Your task to perform on an android device: choose inbox layout in the gmail app Image 0: 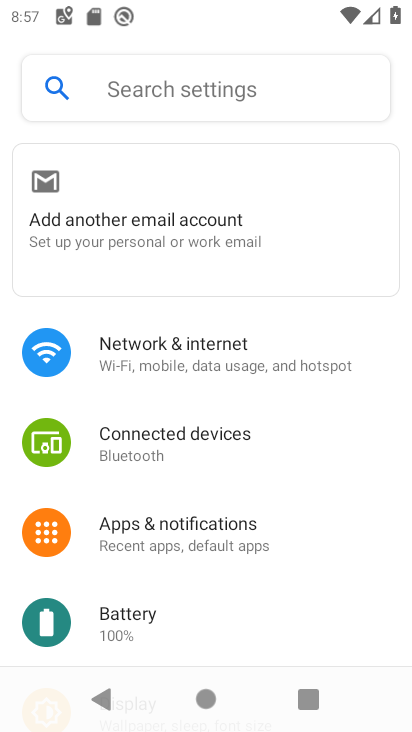
Step 0: press back button
Your task to perform on an android device: choose inbox layout in the gmail app Image 1: 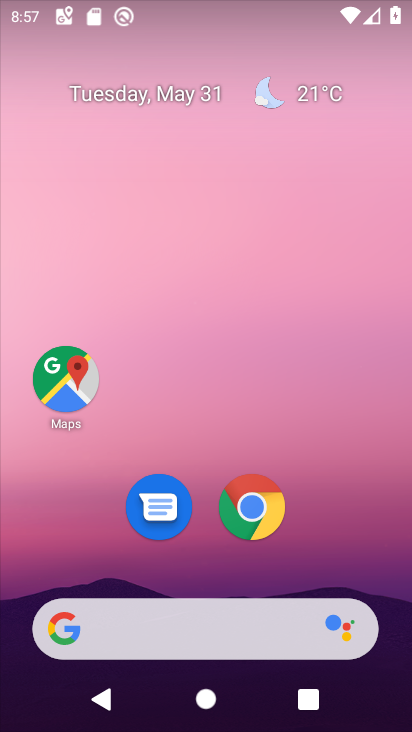
Step 1: drag from (210, 591) to (139, 198)
Your task to perform on an android device: choose inbox layout in the gmail app Image 2: 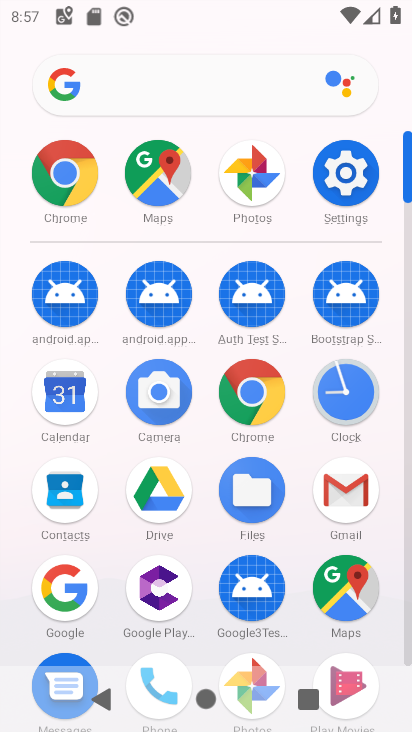
Step 2: click (334, 481)
Your task to perform on an android device: choose inbox layout in the gmail app Image 3: 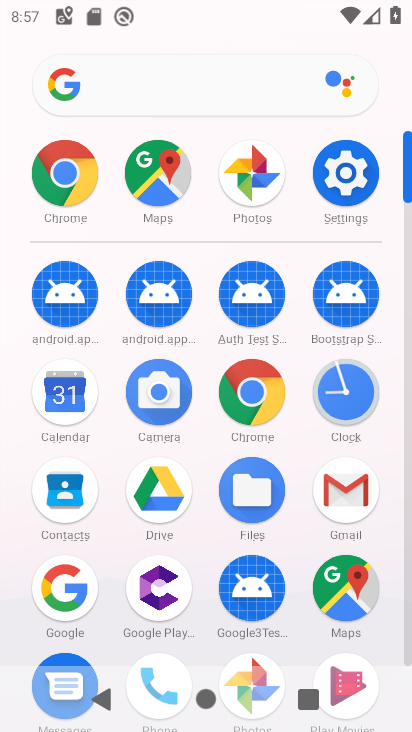
Step 3: click (334, 481)
Your task to perform on an android device: choose inbox layout in the gmail app Image 4: 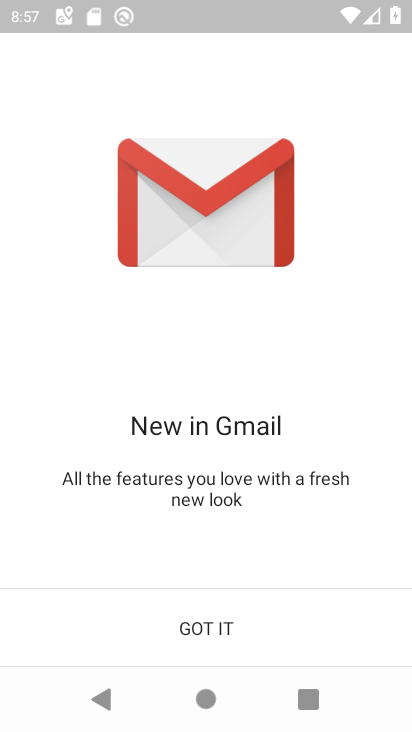
Step 4: click (201, 617)
Your task to perform on an android device: choose inbox layout in the gmail app Image 5: 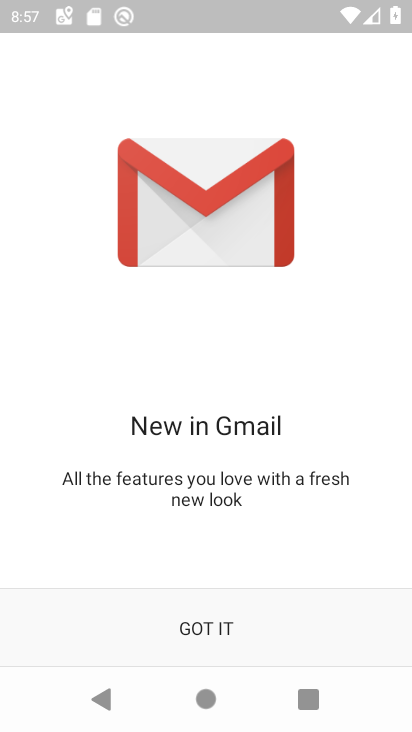
Step 5: click (201, 617)
Your task to perform on an android device: choose inbox layout in the gmail app Image 6: 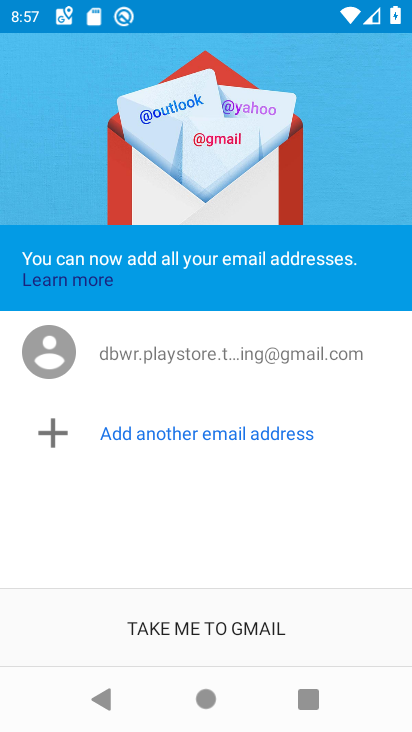
Step 6: click (206, 629)
Your task to perform on an android device: choose inbox layout in the gmail app Image 7: 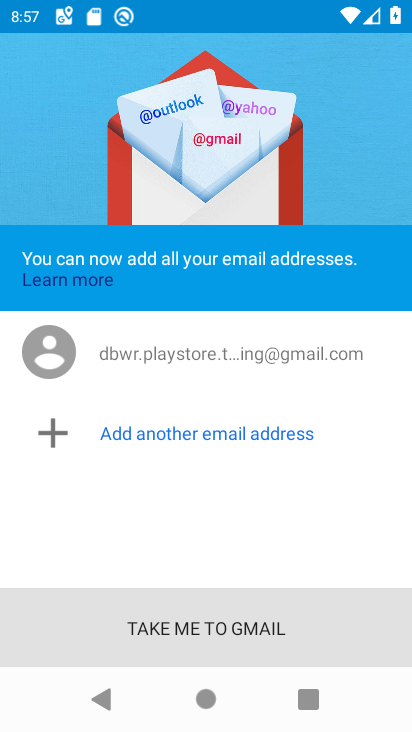
Step 7: click (206, 629)
Your task to perform on an android device: choose inbox layout in the gmail app Image 8: 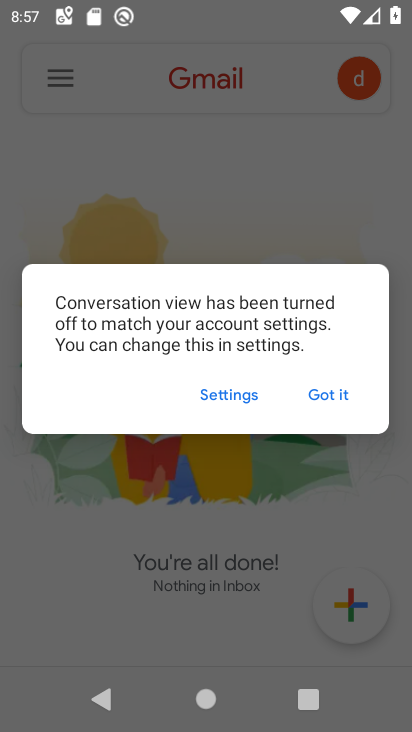
Step 8: click (338, 391)
Your task to perform on an android device: choose inbox layout in the gmail app Image 9: 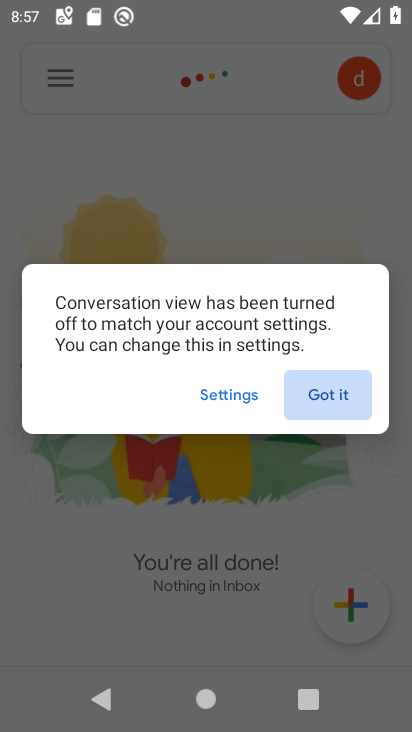
Step 9: click (339, 392)
Your task to perform on an android device: choose inbox layout in the gmail app Image 10: 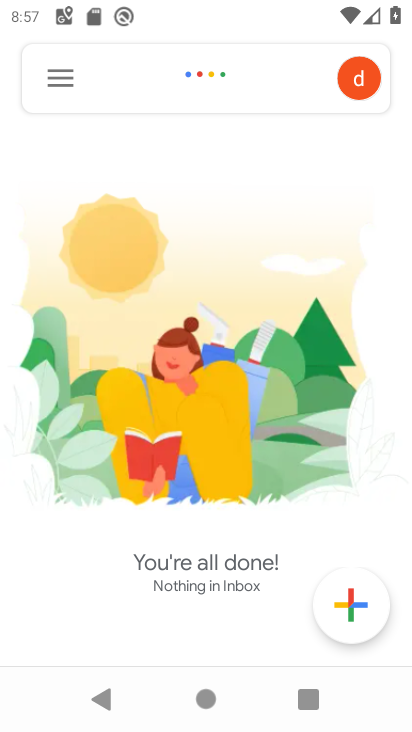
Step 10: click (338, 393)
Your task to perform on an android device: choose inbox layout in the gmail app Image 11: 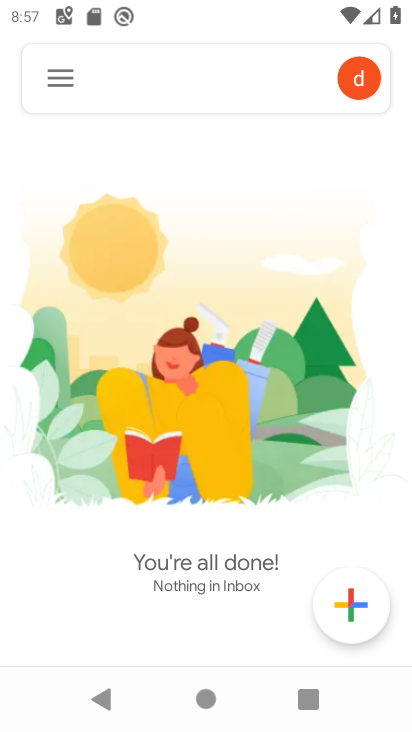
Step 11: click (338, 393)
Your task to perform on an android device: choose inbox layout in the gmail app Image 12: 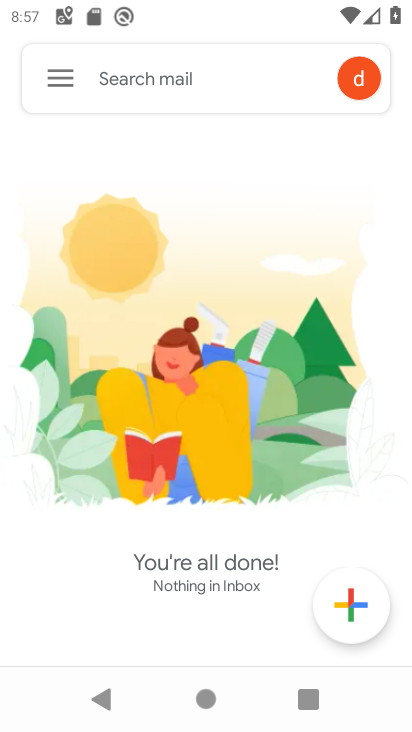
Step 12: click (58, 77)
Your task to perform on an android device: choose inbox layout in the gmail app Image 13: 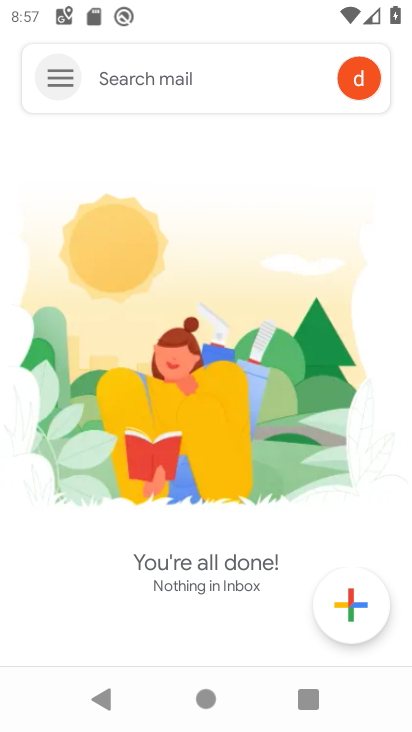
Step 13: click (59, 78)
Your task to perform on an android device: choose inbox layout in the gmail app Image 14: 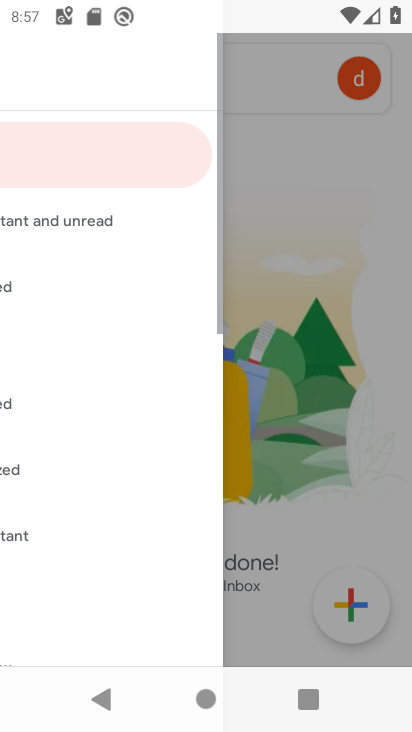
Step 14: click (59, 78)
Your task to perform on an android device: choose inbox layout in the gmail app Image 15: 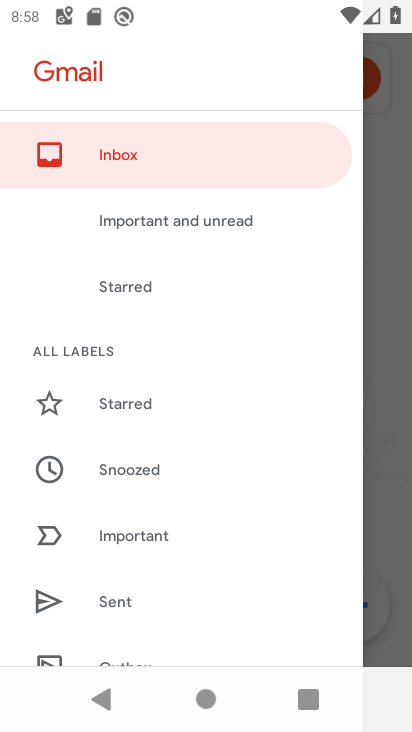
Step 15: drag from (197, 427) to (200, 253)
Your task to perform on an android device: choose inbox layout in the gmail app Image 16: 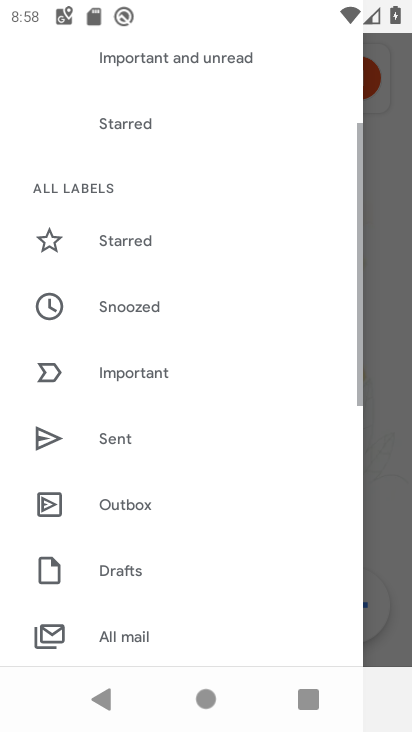
Step 16: drag from (225, 478) to (216, 4)
Your task to perform on an android device: choose inbox layout in the gmail app Image 17: 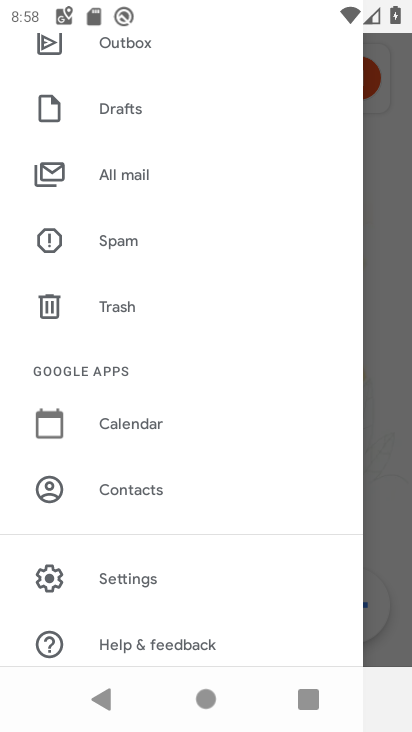
Step 17: click (113, 570)
Your task to perform on an android device: choose inbox layout in the gmail app Image 18: 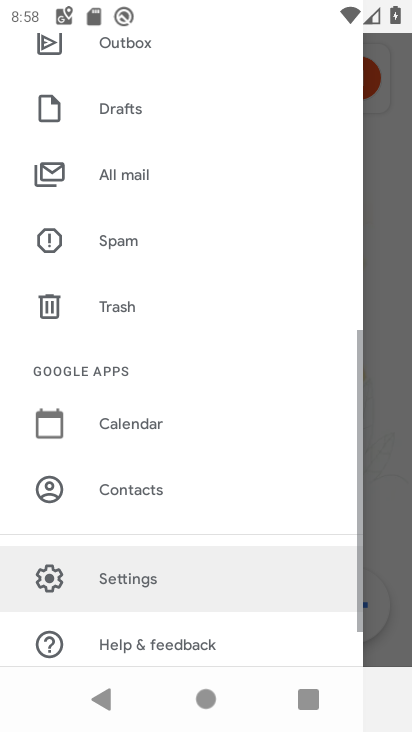
Step 18: click (115, 576)
Your task to perform on an android device: choose inbox layout in the gmail app Image 19: 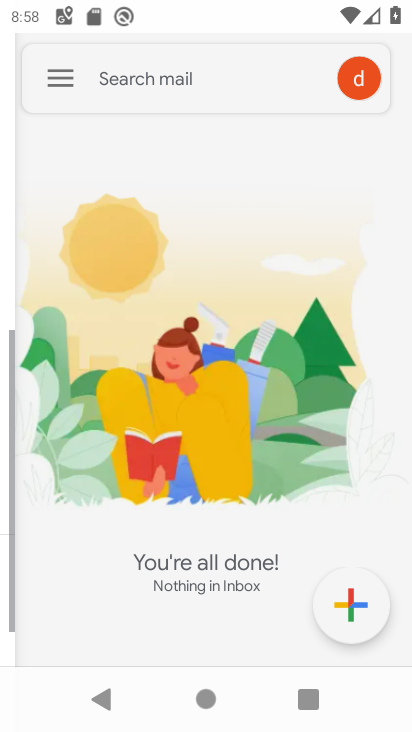
Step 19: click (123, 577)
Your task to perform on an android device: choose inbox layout in the gmail app Image 20: 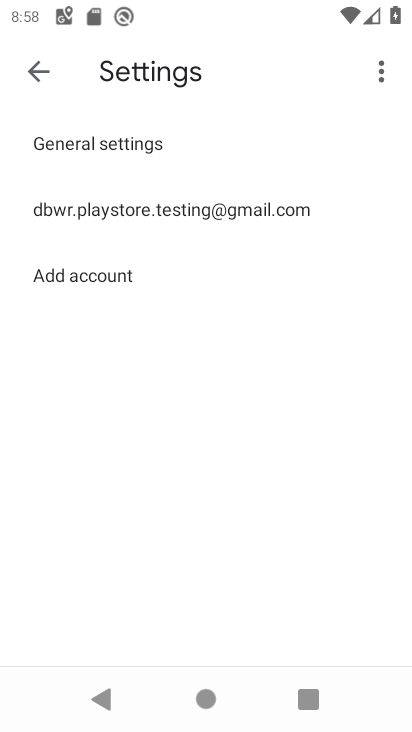
Step 20: click (126, 194)
Your task to perform on an android device: choose inbox layout in the gmail app Image 21: 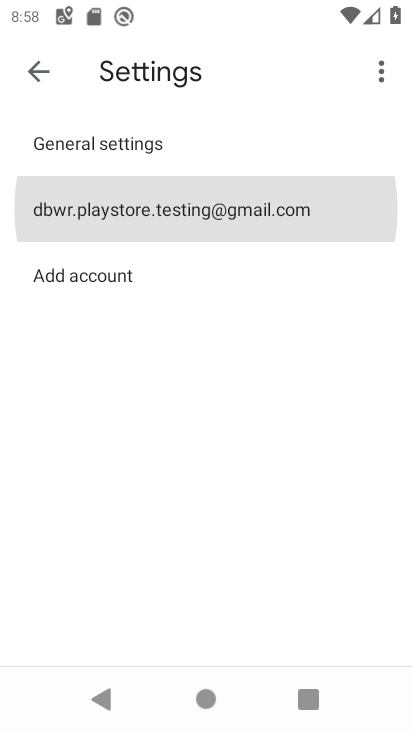
Step 21: click (127, 195)
Your task to perform on an android device: choose inbox layout in the gmail app Image 22: 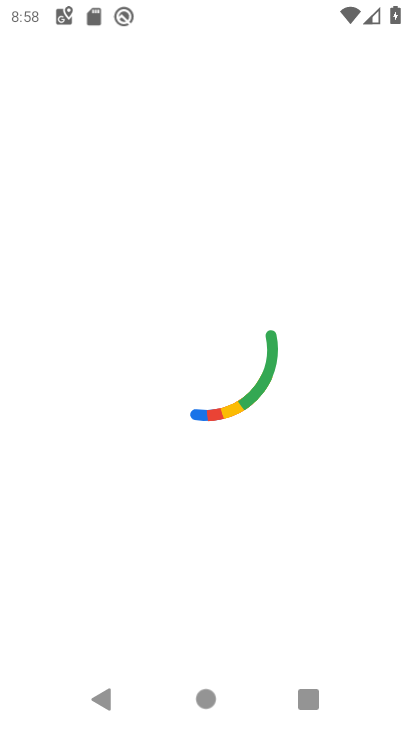
Step 22: press back button
Your task to perform on an android device: choose inbox layout in the gmail app Image 23: 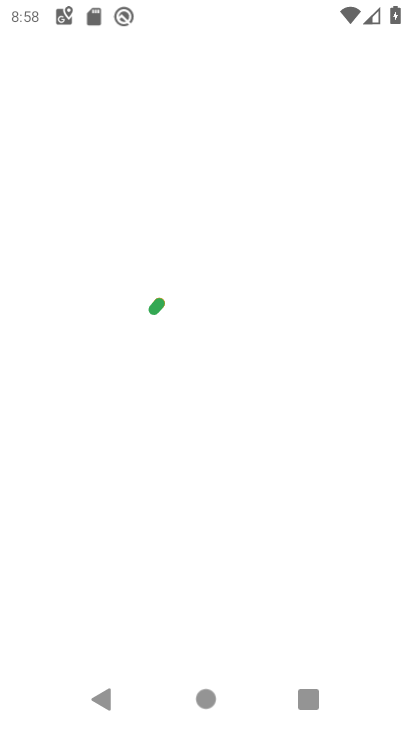
Step 23: press back button
Your task to perform on an android device: choose inbox layout in the gmail app Image 24: 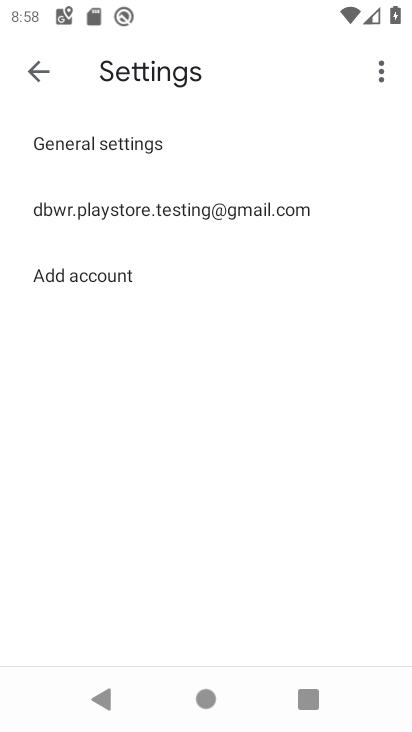
Step 24: click (126, 205)
Your task to perform on an android device: choose inbox layout in the gmail app Image 25: 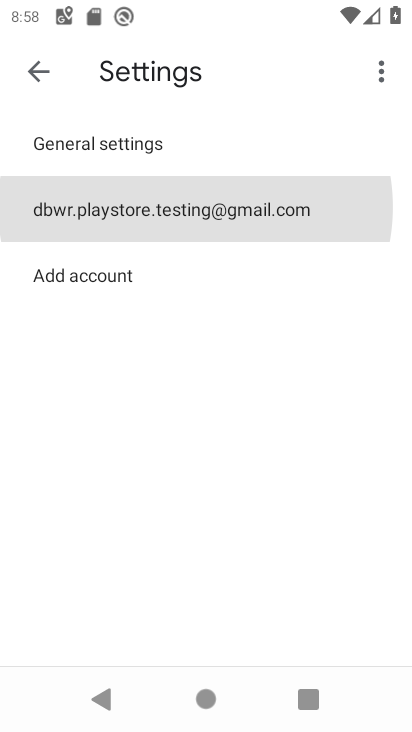
Step 25: click (128, 204)
Your task to perform on an android device: choose inbox layout in the gmail app Image 26: 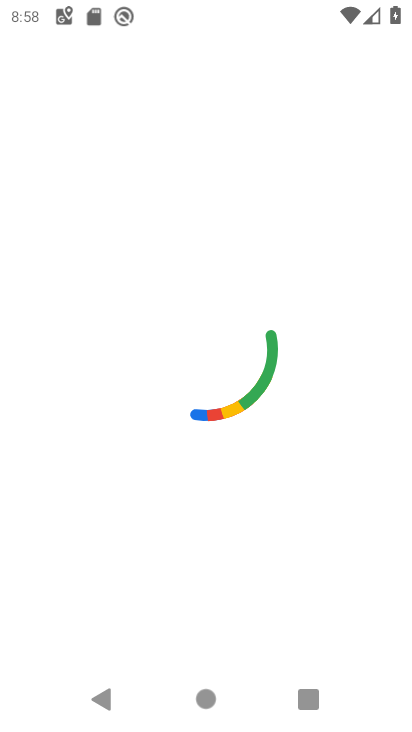
Step 26: press back button
Your task to perform on an android device: choose inbox layout in the gmail app Image 27: 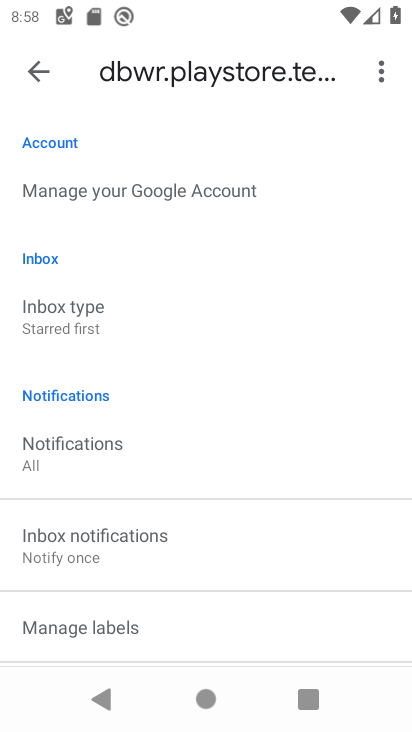
Step 27: click (55, 316)
Your task to perform on an android device: choose inbox layout in the gmail app Image 28: 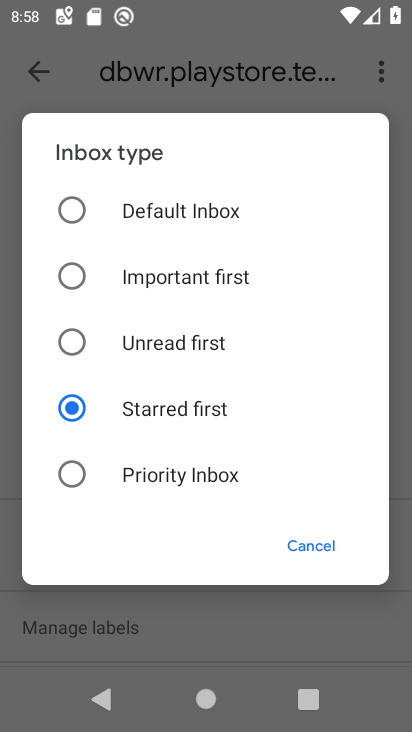
Step 28: click (77, 206)
Your task to perform on an android device: choose inbox layout in the gmail app Image 29: 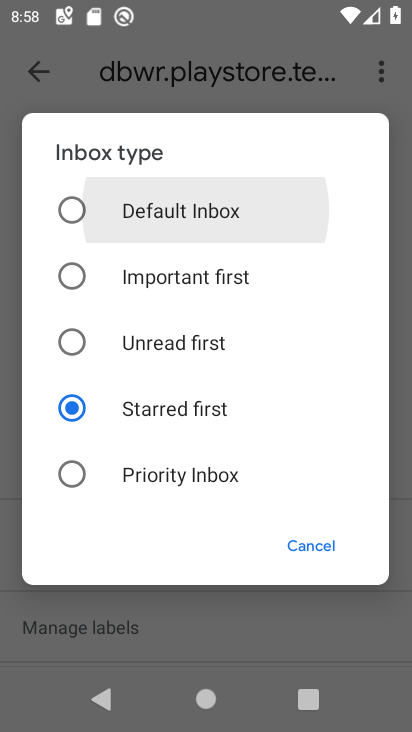
Step 29: click (77, 207)
Your task to perform on an android device: choose inbox layout in the gmail app Image 30: 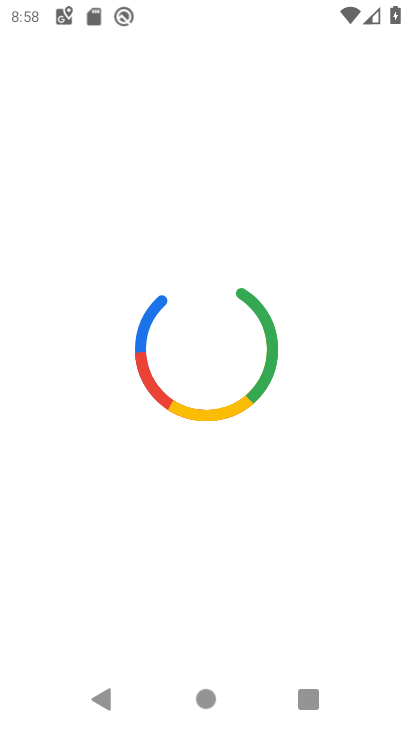
Step 30: task complete